Your task to perform on an android device: Do I have any events today? Image 0: 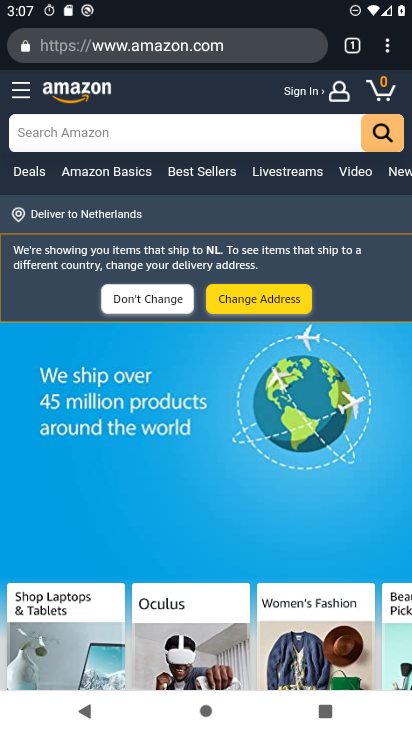
Step 0: press home button
Your task to perform on an android device: Do I have any events today? Image 1: 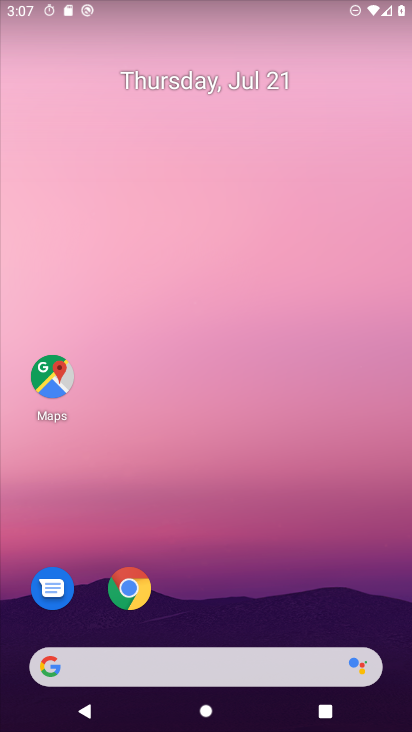
Step 1: drag from (230, 577) to (335, 5)
Your task to perform on an android device: Do I have any events today? Image 2: 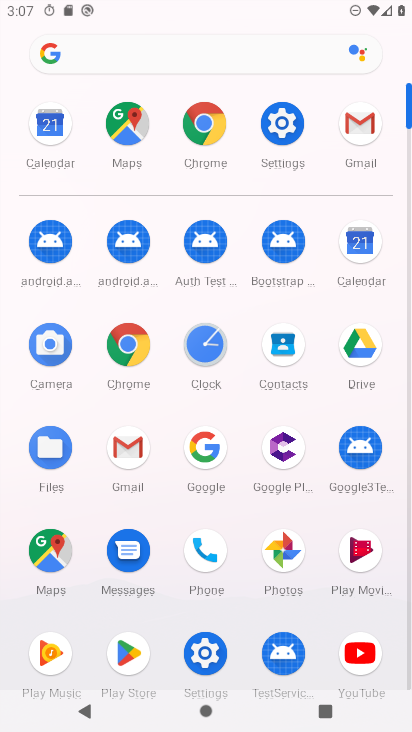
Step 2: click (376, 248)
Your task to perform on an android device: Do I have any events today? Image 3: 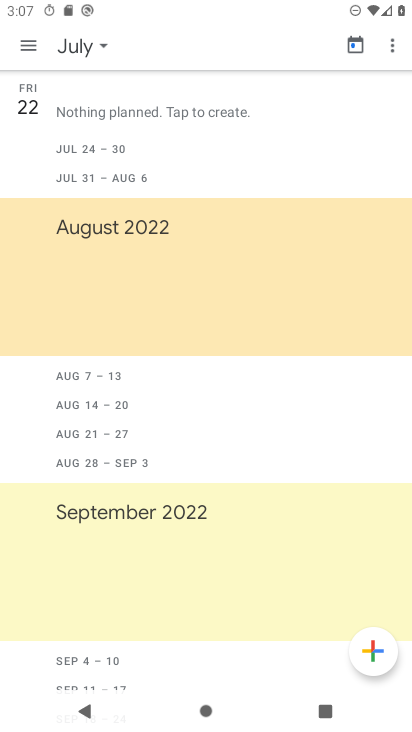
Step 3: click (93, 47)
Your task to perform on an android device: Do I have any events today? Image 4: 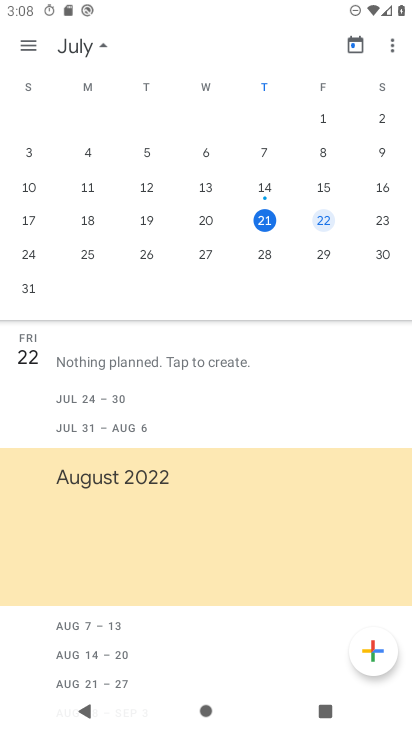
Step 4: task complete